Your task to perform on an android device: Open the Play Movies app and select the watchlist tab. Image 0: 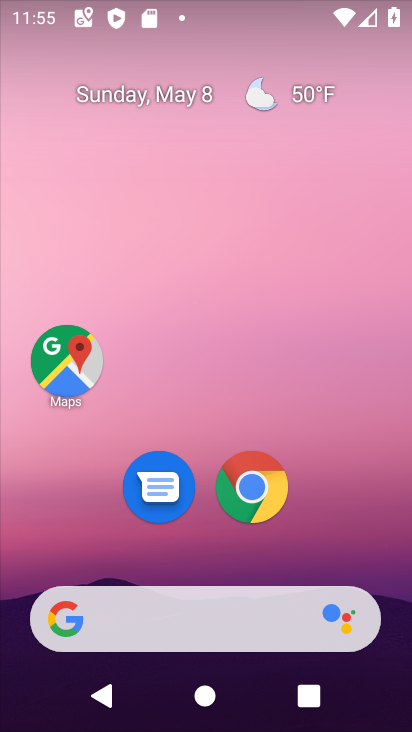
Step 0: drag from (359, 471) to (356, 225)
Your task to perform on an android device: Open the Play Movies app and select the watchlist tab. Image 1: 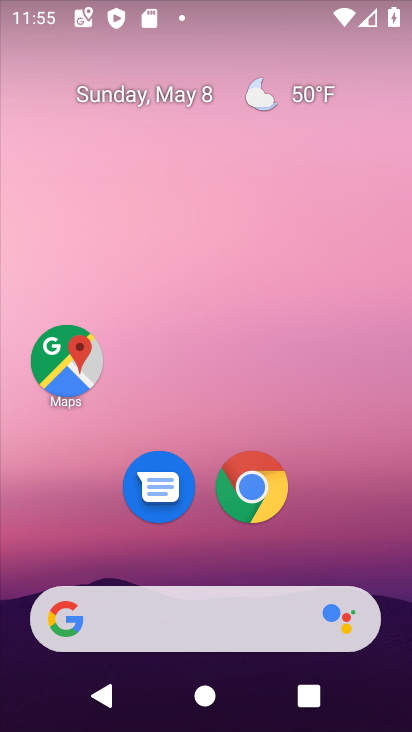
Step 1: drag from (335, 529) to (338, 166)
Your task to perform on an android device: Open the Play Movies app and select the watchlist tab. Image 2: 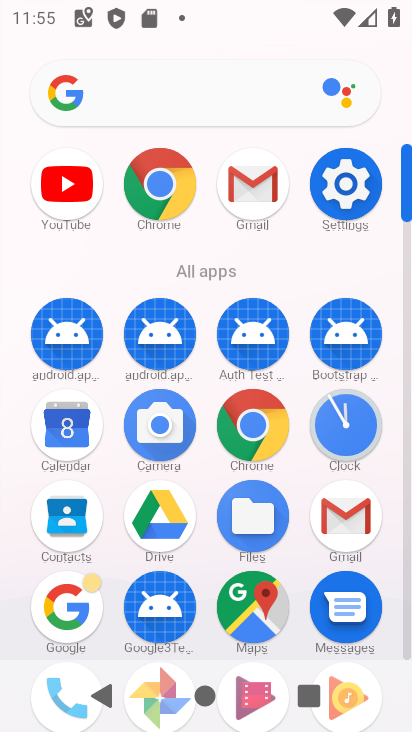
Step 2: drag from (293, 591) to (272, 345)
Your task to perform on an android device: Open the Play Movies app and select the watchlist tab. Image 3: 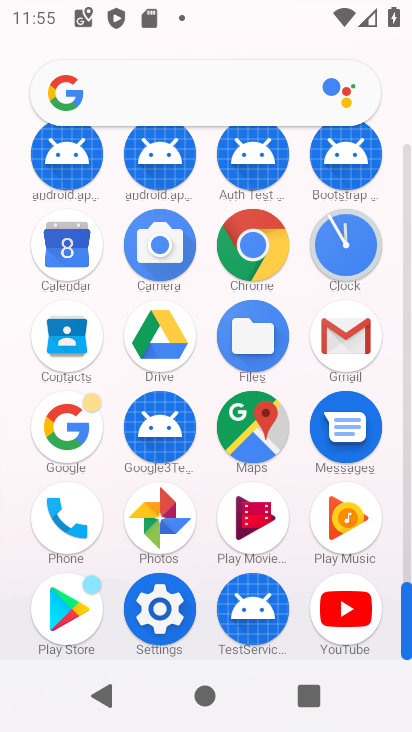
Step 3: click (269, 527)
Your task to perform on an android device: Open the Play Movies app and select the watchlist tab. Image 4: 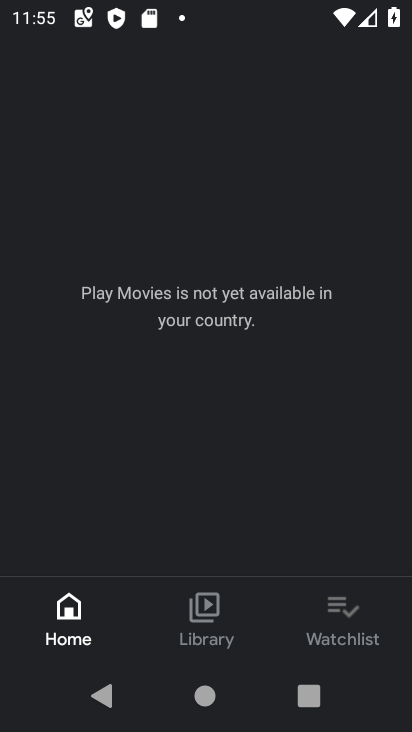
Step 4: click (332, 641)
Your task to perform on an android device: Open the Play Movies app and select the watchlist tab. Image 5: 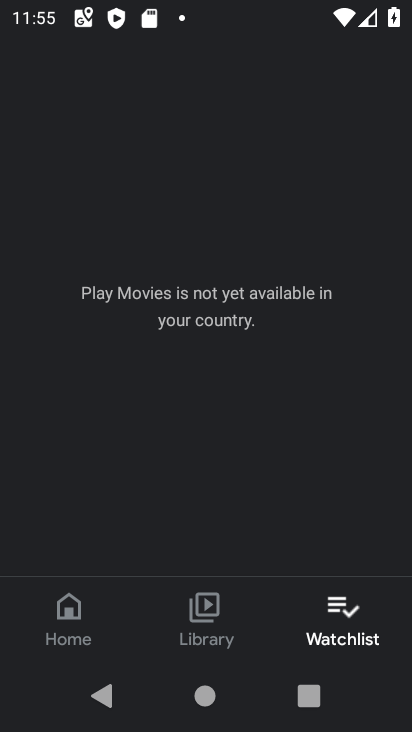
Step 5: task complete